Your task to perform on an android device: turn on javascript in the chrome app Image 0: 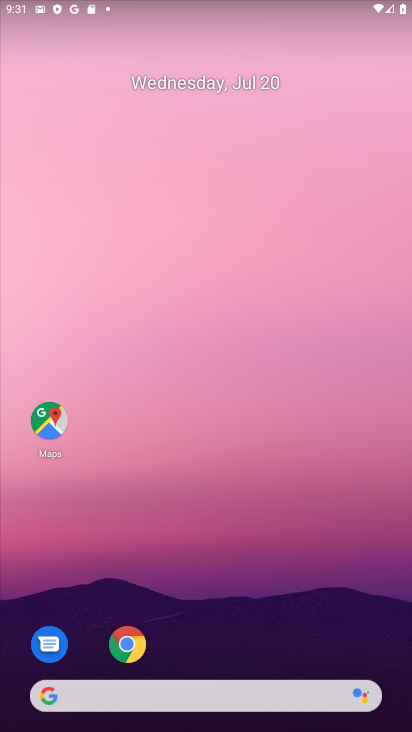
Step 0: click (123, 648)
Your task to perform on an android device: turn on javascript in the chrome app Image 1: 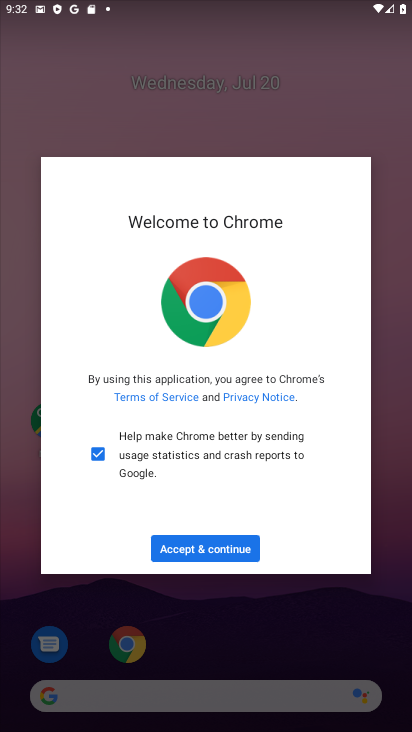
Step 1: click (226, 540)
Your task to perform on an android device: turn on javascript in the chrome app Image 2: 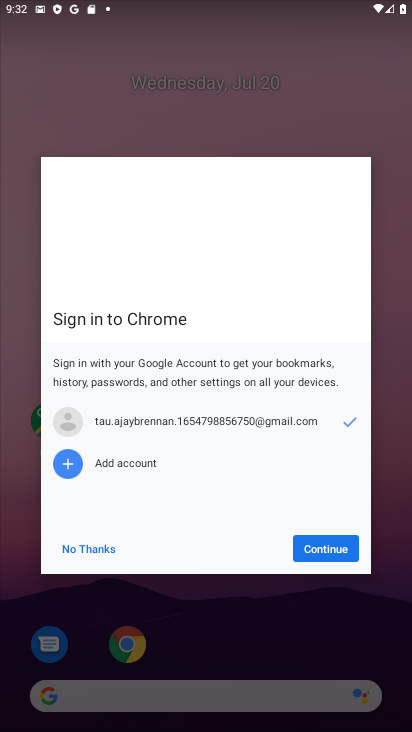
Step 2: click (317, 544)
Your task to perform on an android device: turn on javascript in the chrome app Image 3: 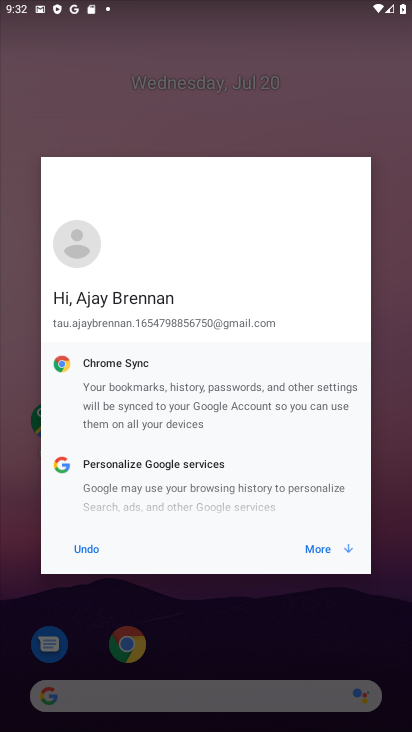
Step 3: click (323, 546)
Your task to perform on an android device: turn on javascript in the chrome app Image 4: 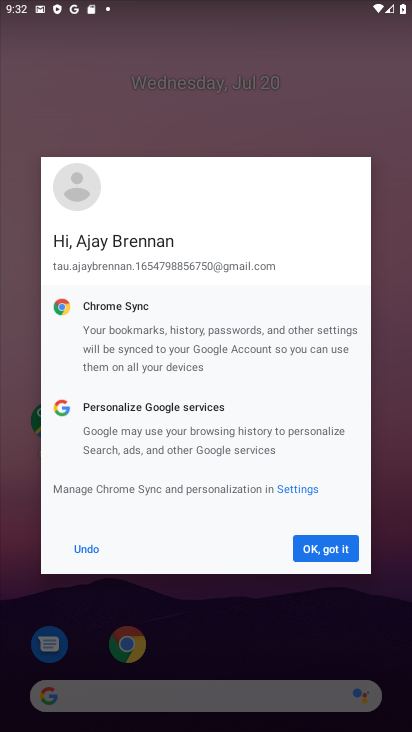
Step 4: click (323, 546)
Your task to perform on an android device: turn on javascript in the chrome app Image 5: 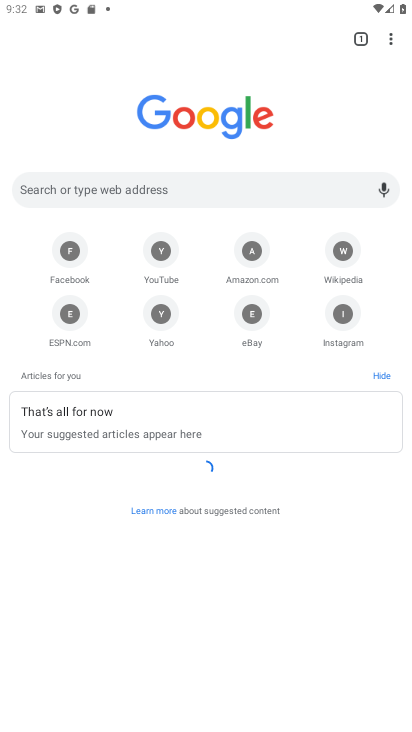
Step 5: click (392, 34)
Your task to perform on an android device: turn on javascript in the chrome app Image 6: 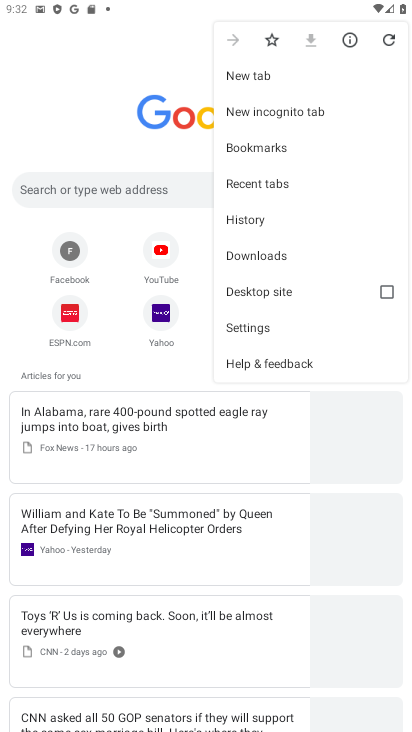
Step 6: click (257, 331)
Your task to perform on an android device: turn on javascript in the chrome app Image 7: 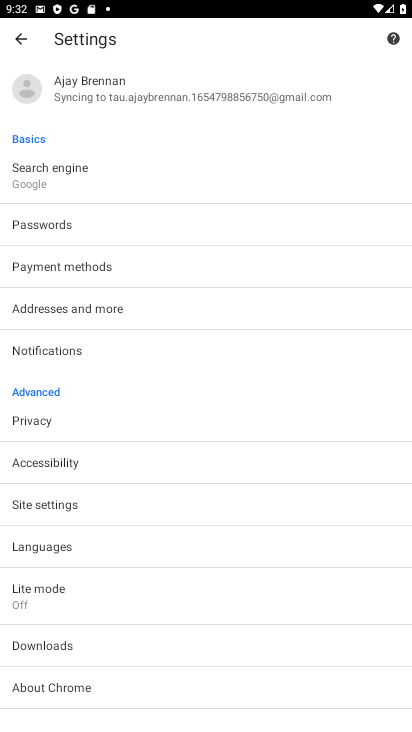
Step 7: click (43, 506)
Your task to perform on an android device: turn on javascript in the chrome app Image 8: 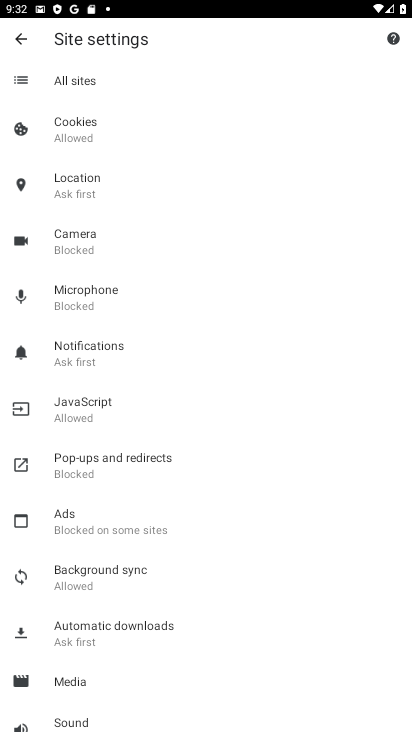
Step 8: click (78, 402)
Your task to perform on an android device: turn on javascript in the chrome app Image 9: 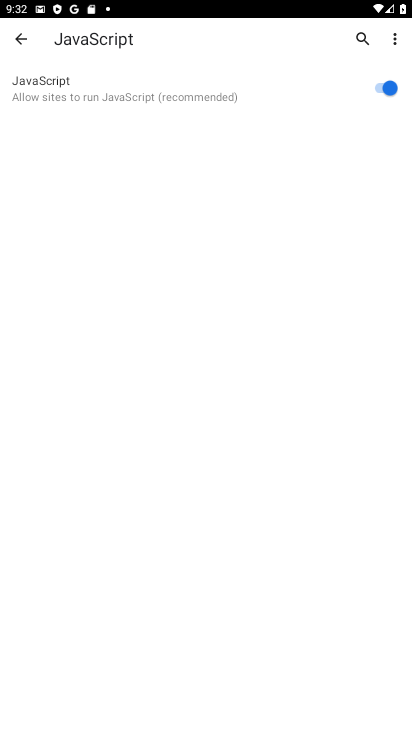
Step 9: task complete